Your task to perform on an android device: empty trash in google photos Image 0: 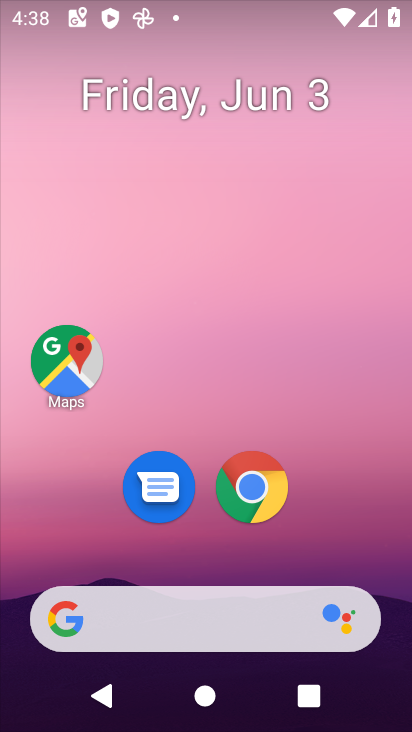
Step 0: drag from (188, 347) to (188, 30)
Your task to perform on an android device: empty trash in google photos Image 1: 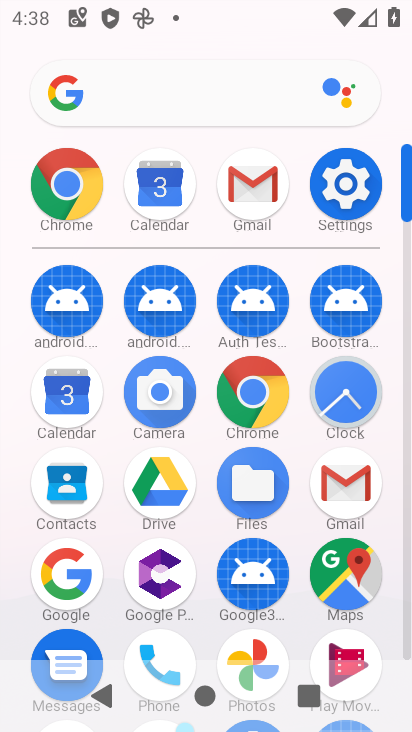
Step 1: drag from (201, 531) to (182, 87)
Your task to perform on an android device: empty trash in google photos Image 2: 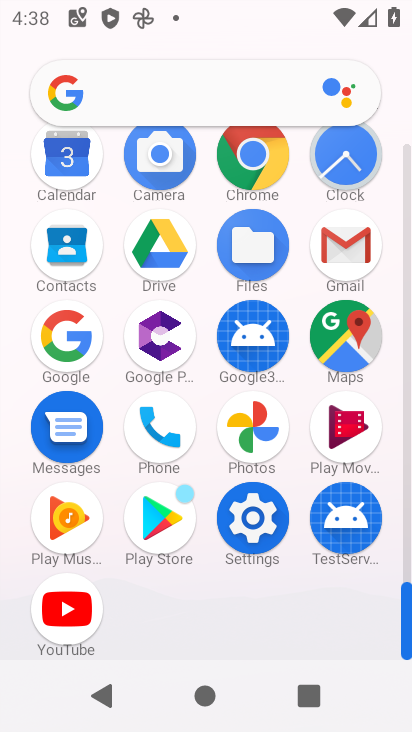
Step 2: click (268, 426)
Your task to perform on an android device: empty trash in google photos Image 3: 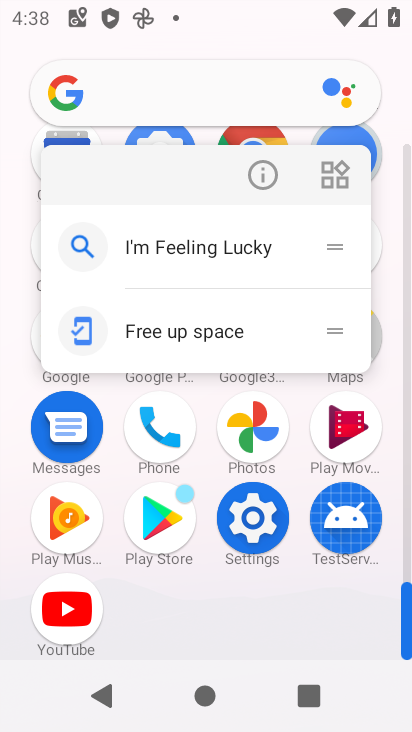
Step 3: click (269, 176)
Your task to perform on an android device: empty trash in google photos Image 4: 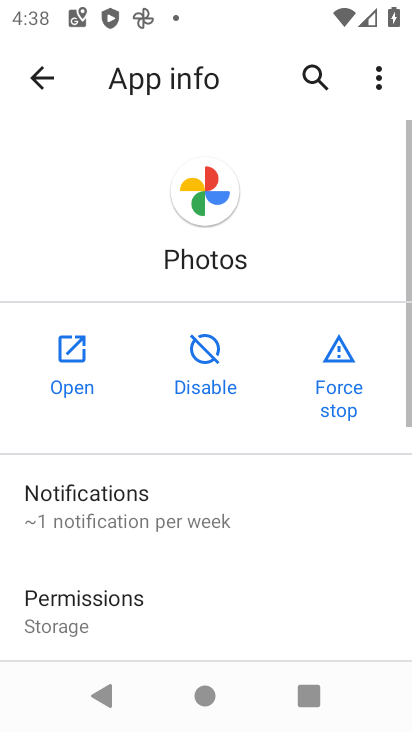
Step 4: click (41, 347)
Your task to perform on an android device: empty trash in google photos Image 5: 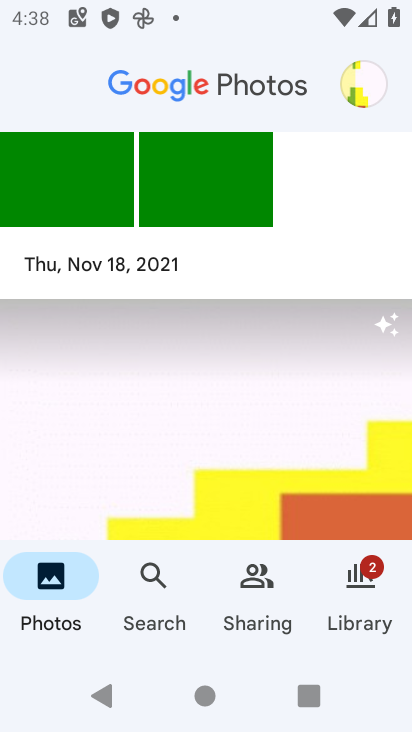
Step 5: click (333, 579)
Your task to perform on an android device: empty trash in google photos Image 6: 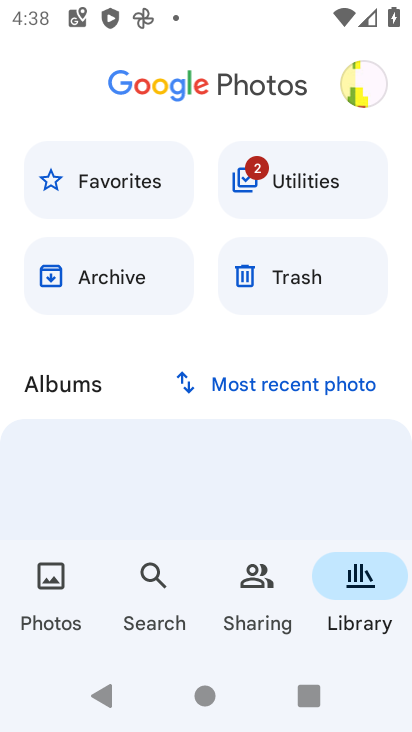
Step 6: click (256, 291)
Your task to perform on an android device: empty trash in google photos Image 7: 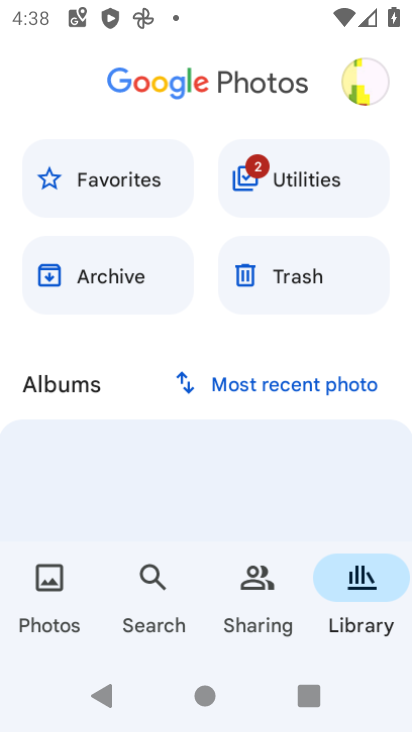
Step 7: task complete